Your task to perform on an android device: What is the recent news? Image 0: 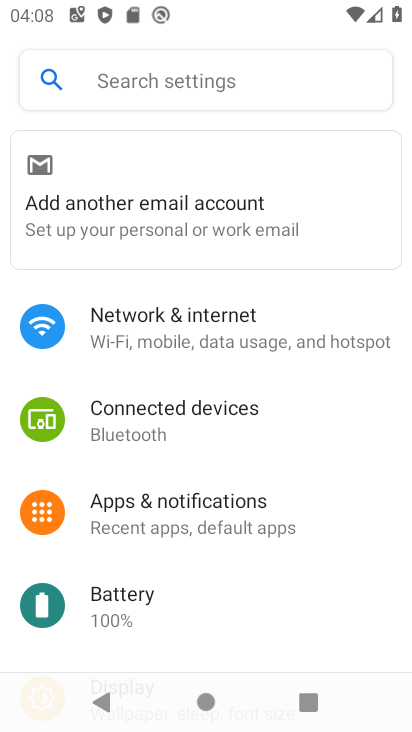
Step 0: press home button
Your task to perform on an android device: What is the recent news? Image 1: 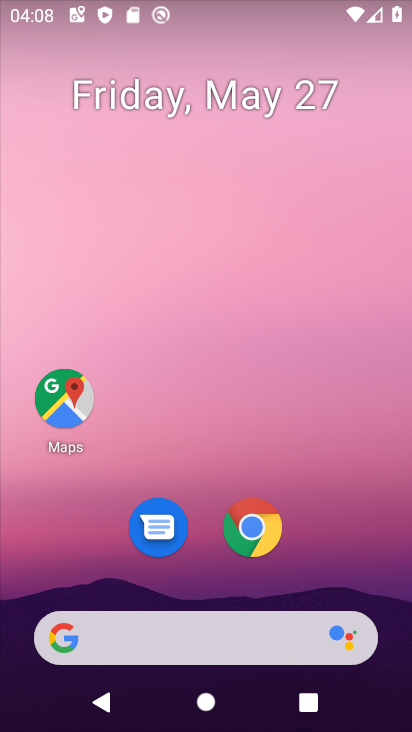
Step 1: click (262, 524)
Your task to perform on an android device: What is the recent news? Image 2: 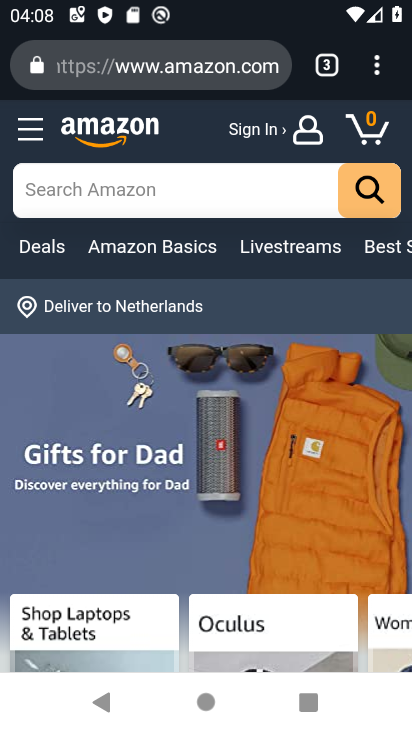
Step 2: click (248, 72)
Your task to perform on an android device: What is the recent news? Image 3: 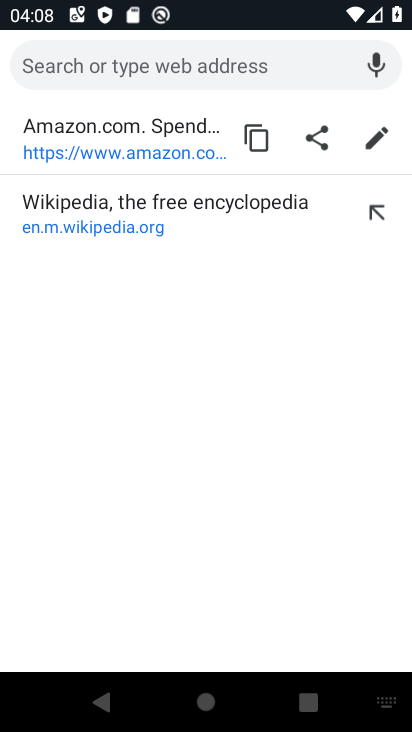
Step 3: type "What is the recent news?"
Your task to perform on an android device: What is the recent news? Image 4: 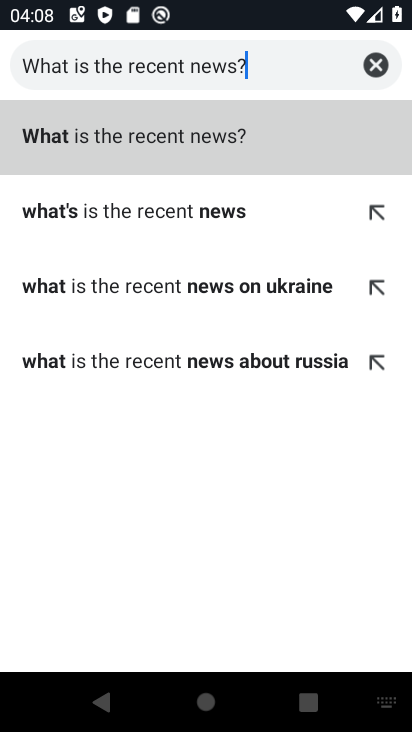
Step 4: click (66, 136)
Your task to perform on an android device: What is the recent news? Image 5: 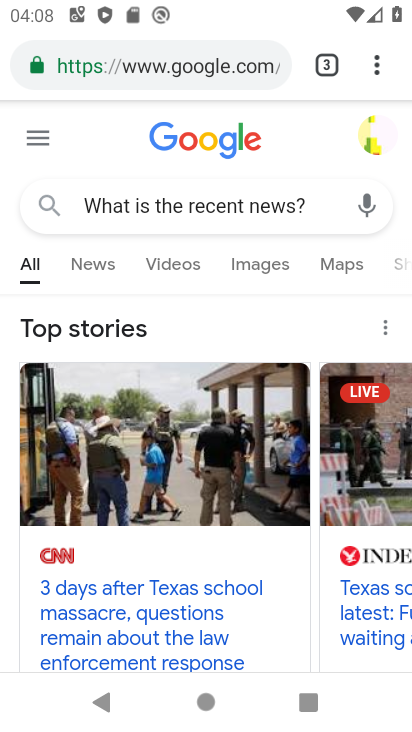
Step 5: click (92, 263)
Your task to perform on an android device: What is the recent news? Image 6: 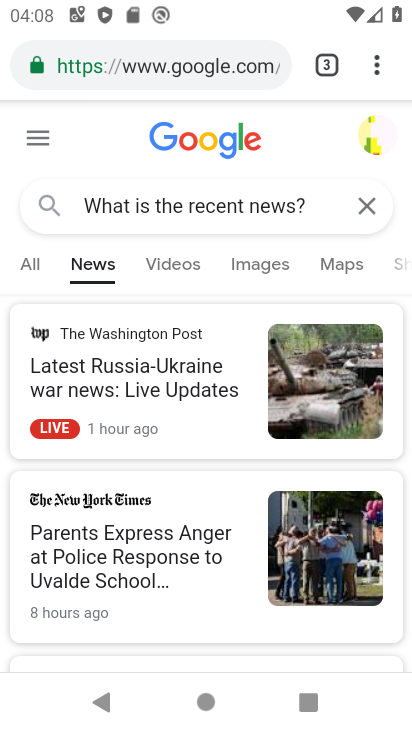
Step 6: task complete